Your task to perform on an android device: Go to settings Image 0: 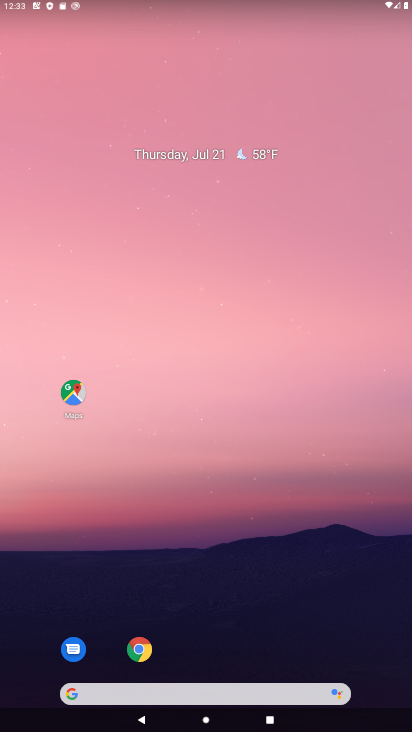
Step 0: drag from (376, 663) to (331, 160)
Your task to perform on an android device: Go to settings Image 1: 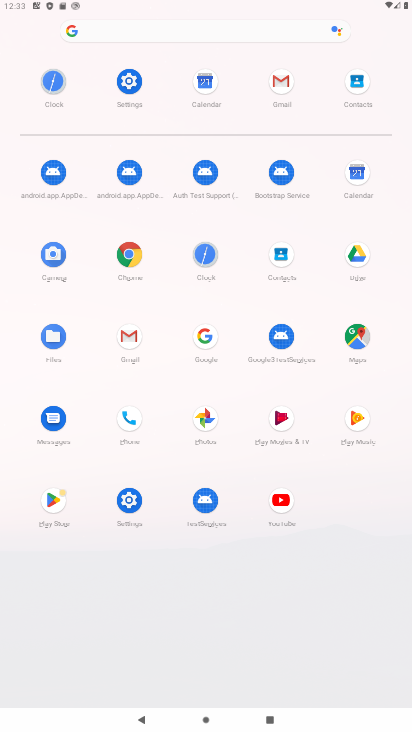
Step 1: click (128, 502)
Your task to perform on an android device: Go to settings Image 2: 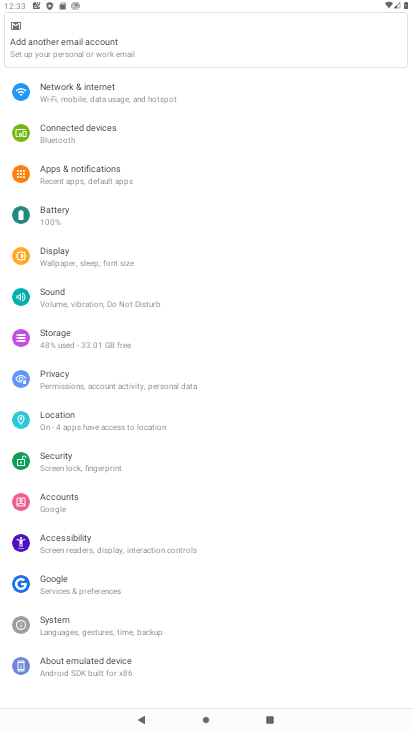
Step 2: task complete